Your task to perform on an android device: Go to Google Image 0: 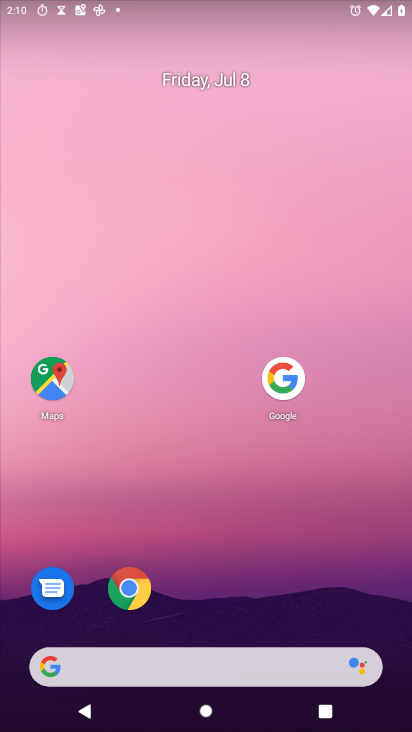
Step 0: click (288, 377)
Your task to perform on an android device: Go to Google Image 1: 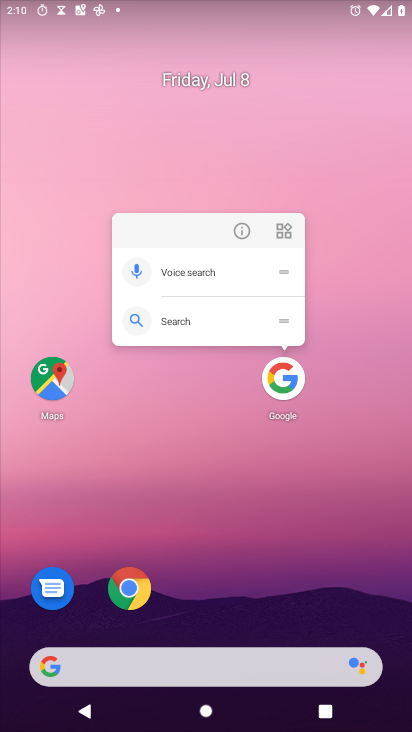
Step 1: click (288, 375)
Your task to perform on an android device: Go to Google Image 2: 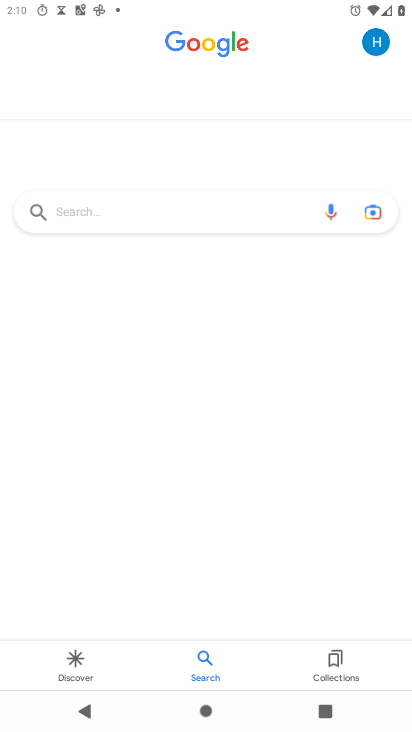
Step 2: task complete